Your task to perform on an android device: clear history in the chrome app Image 0: 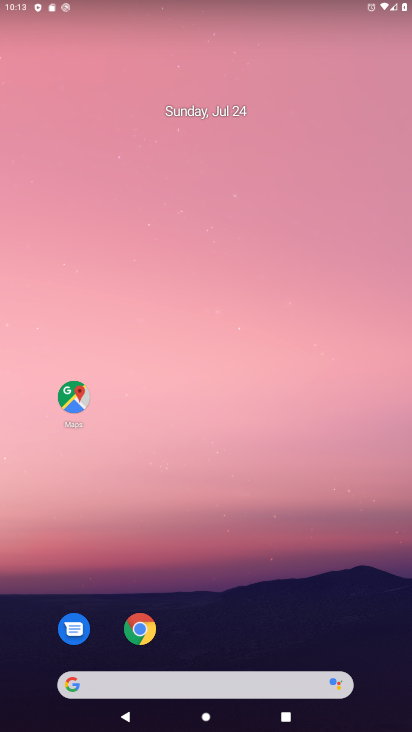
Step 0: click (140, 630)
Your task to perform on an android device: clear history in the chrome app Image 1: 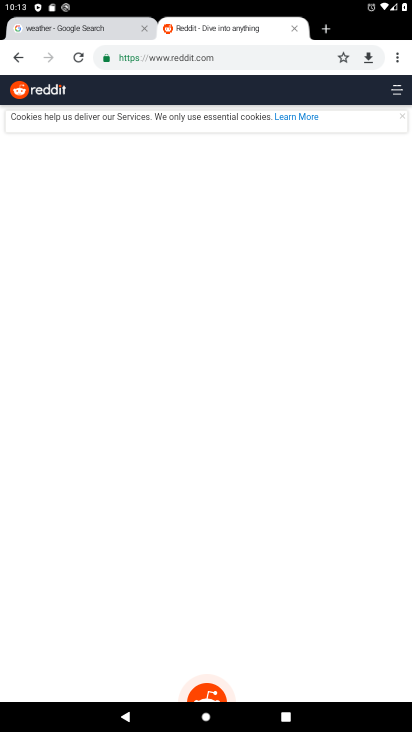
Step 1: click (399, 60)
Your task to perform on an android device: clear history in the chrome app Image 2: 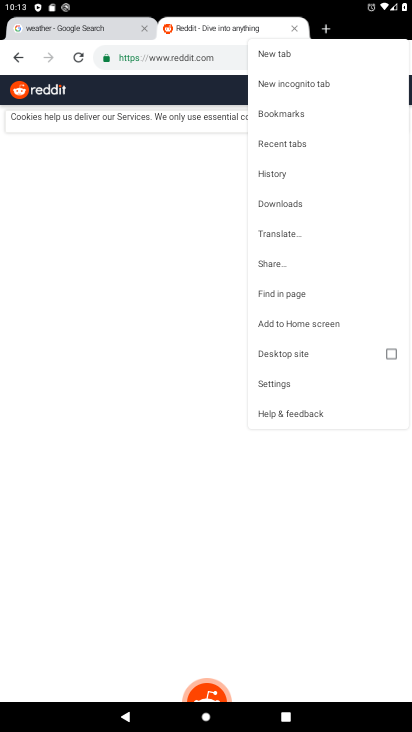
Step 2: click (279, 179)
Your task to perform on an android device: clear history in the chrome app Image 3: 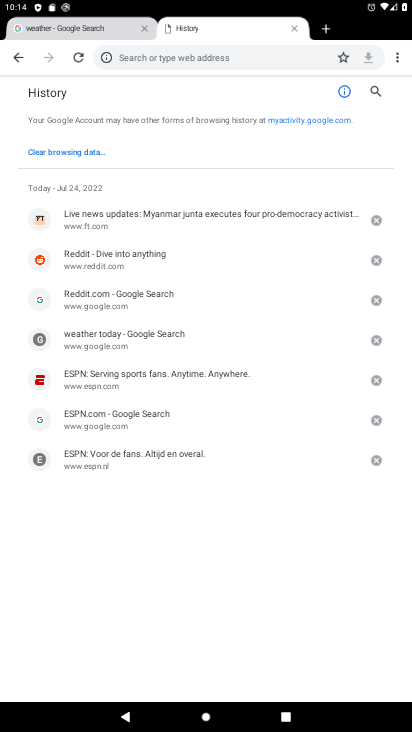
Step 3: click (87, 154)
Your task to perform on an android device: clear history in the chrome app Image 4: 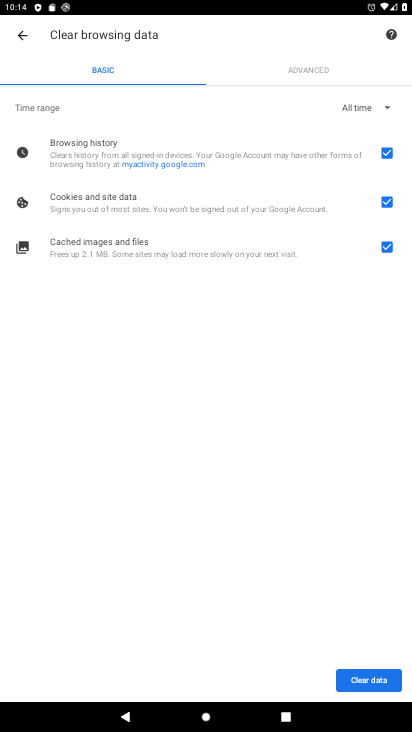
Step 4: click (370, 677)
Your task to perform on an android device: clear history in the chrome app Image 5: 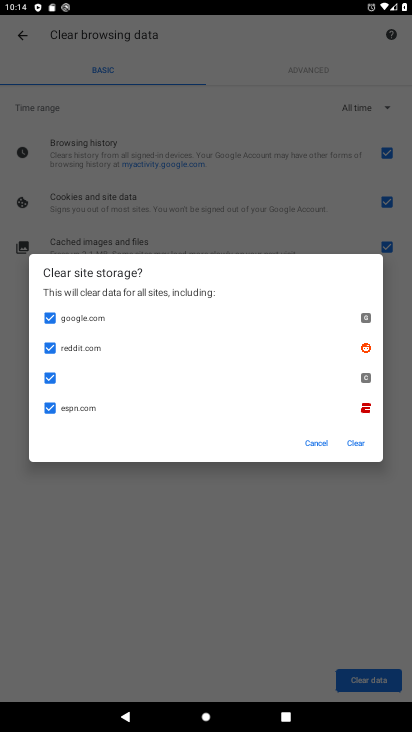
Step 5: click (363, 446)
Your task to perform on an android device: clear history in the chrome app Image 6: 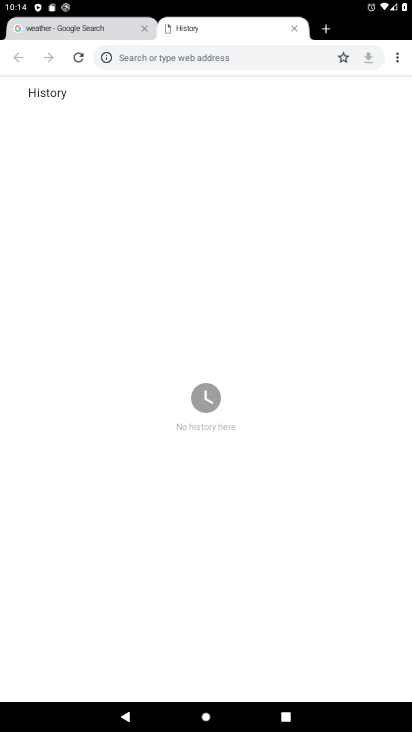
Step 6: task complete